Your task to perform on an android device: Open Chrome and go to settings Image 0: 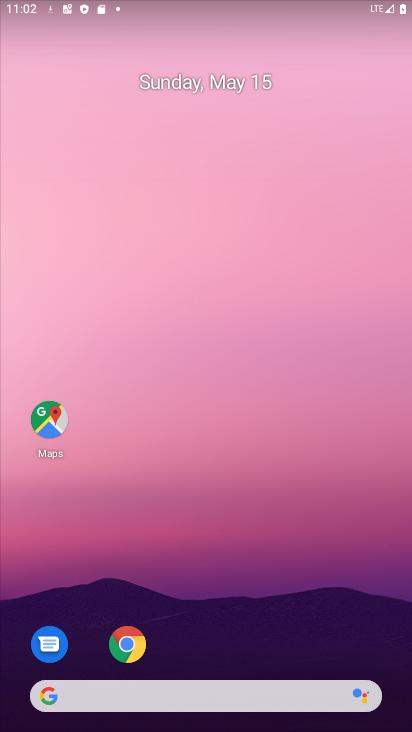
Step 0: drag from (254, 708) to (236, 248)
Your task to perform on an android device: Open Chrome and go to settings Image 1: 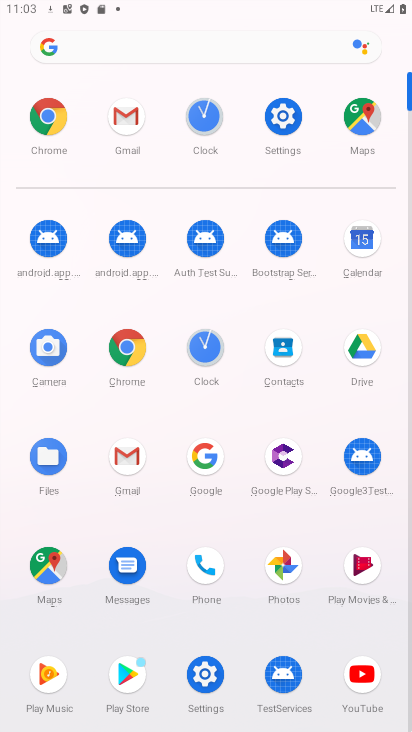
Step 1: click (132, 362)
Your task to perform on an android device: Open Chrome and go to settings Image 2: 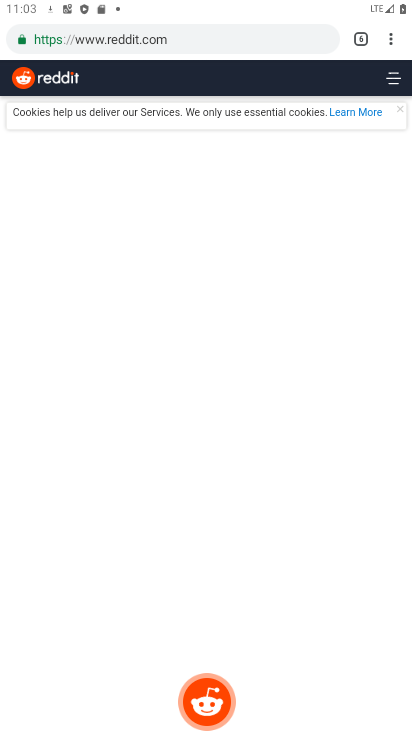
Step 2: click (390, 49)
Your task to perform on an android device: Open Chrome and go to settings Image 3: 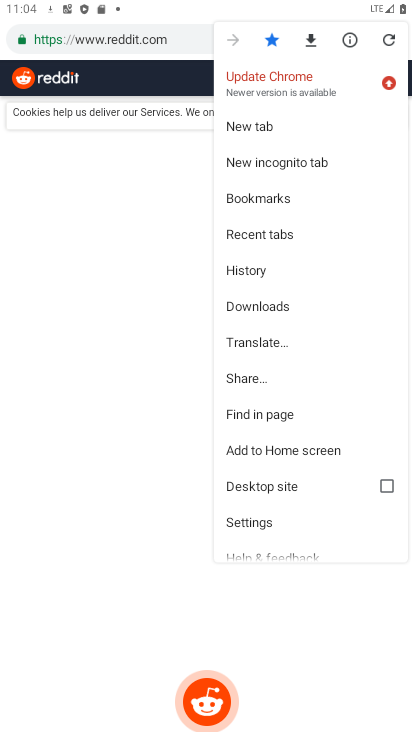
Step 3: click (254, 517)
Your task to perform on an android device: Open Chrome and go to settings Image 4: 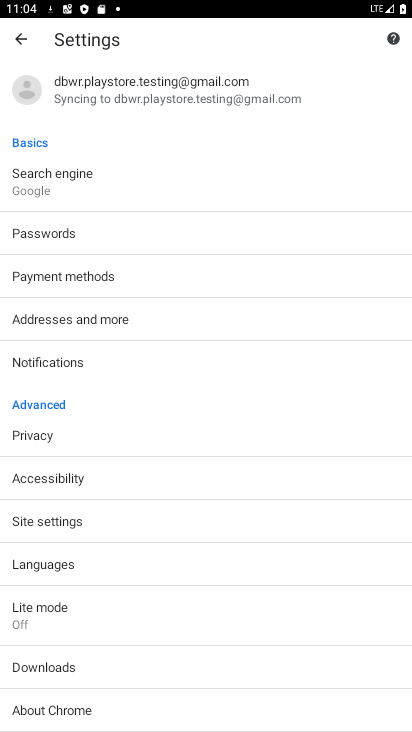
Step 4: task complete